Your task to perform on an android device: turn off picture-in-picture Image 0: 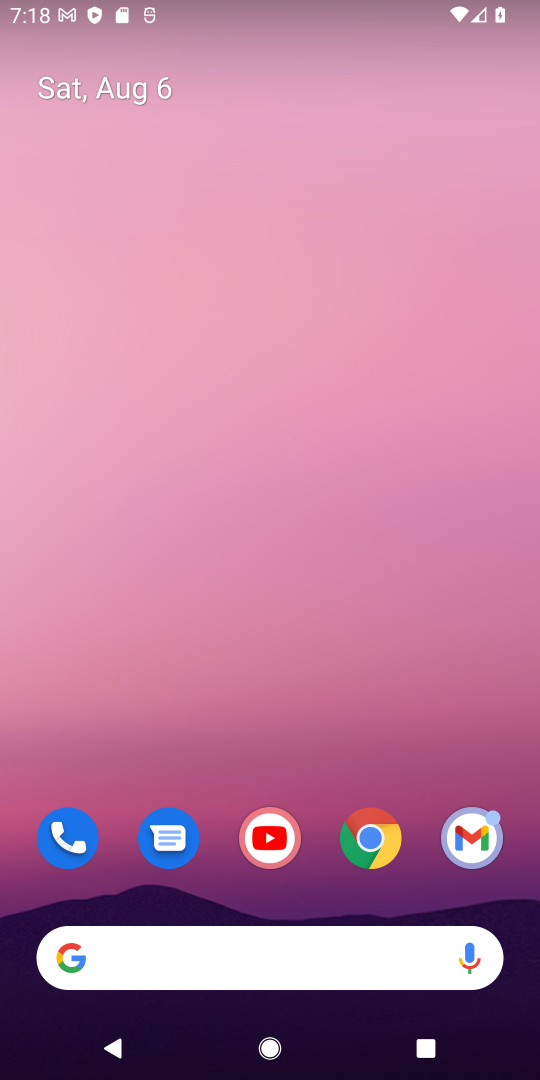
Step 0: click (401, 762)
Your task to perform on an android device: turn off picture-in-picture Image 1: 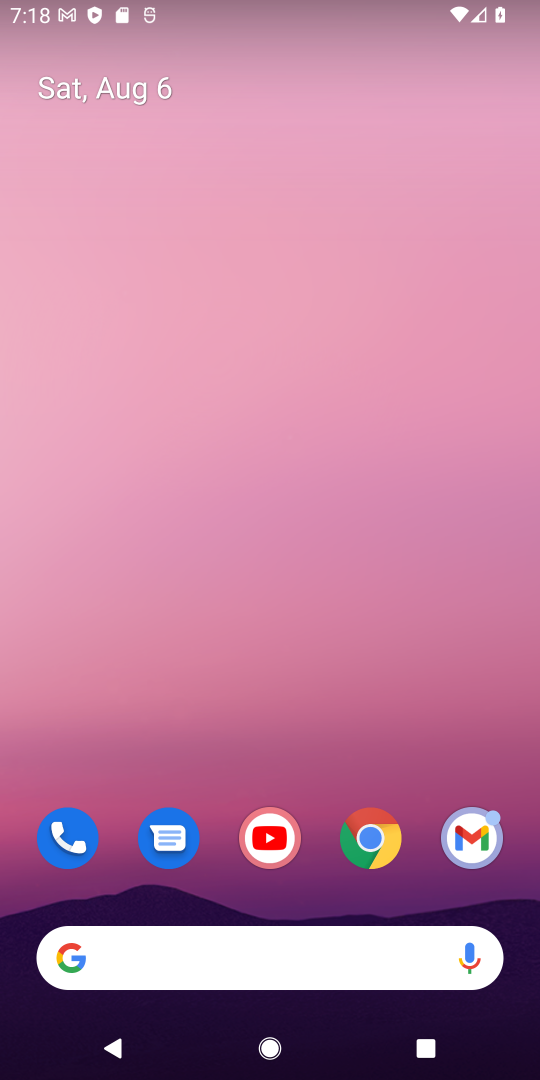
Step 1: drag from (199, 787) to (138, 314)
Your task to perform on an android device: turn off picture-in-picture Image 2: 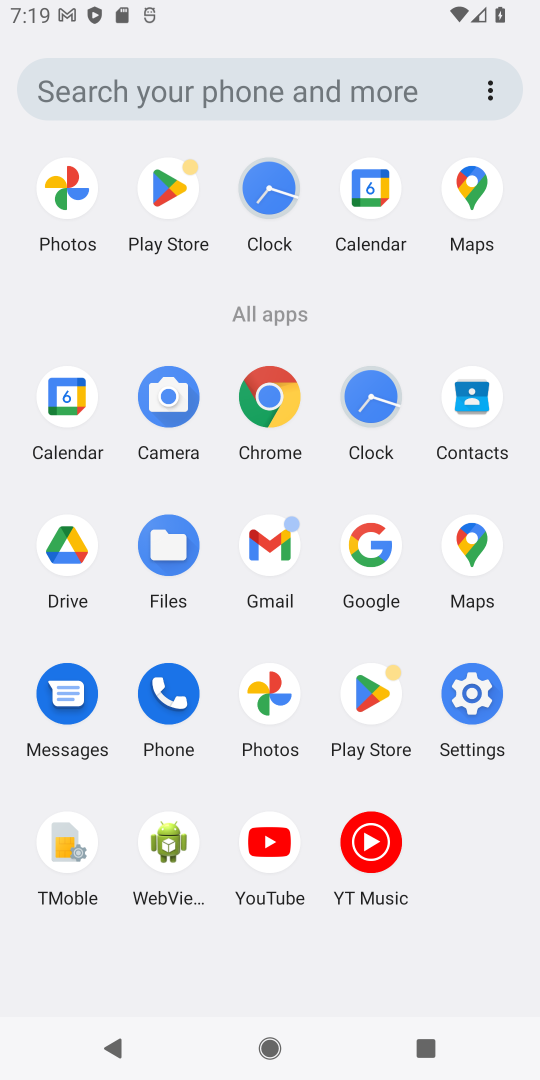
Step 2: click (472, 721)
Your task to perform on an android device: turn off picture-in-picture Image 3: 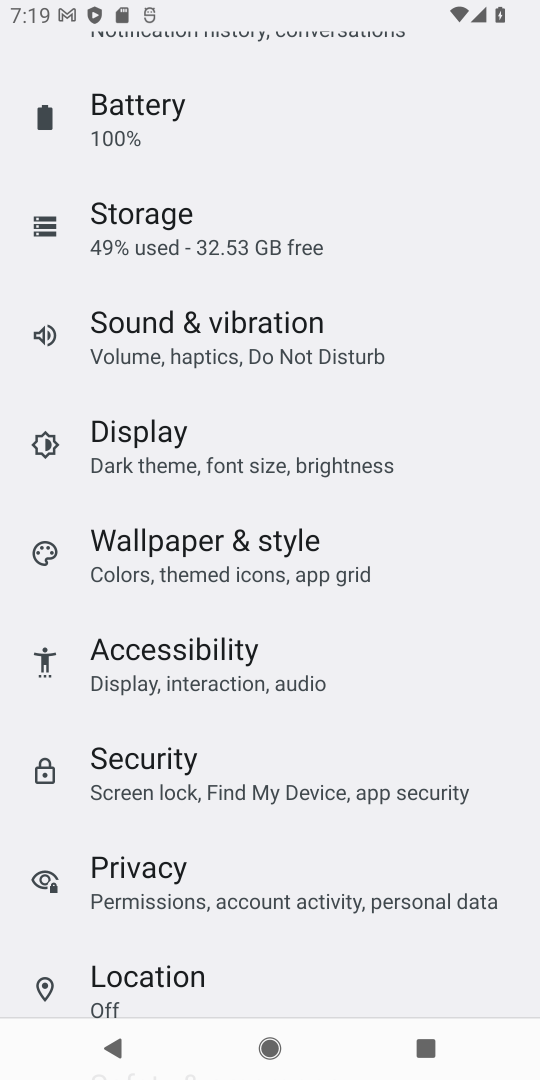
Step 3: drag from (416, 1043) to (336, 1067)
Your task to perform on an android device: turn off picture-in-picture Image 4: 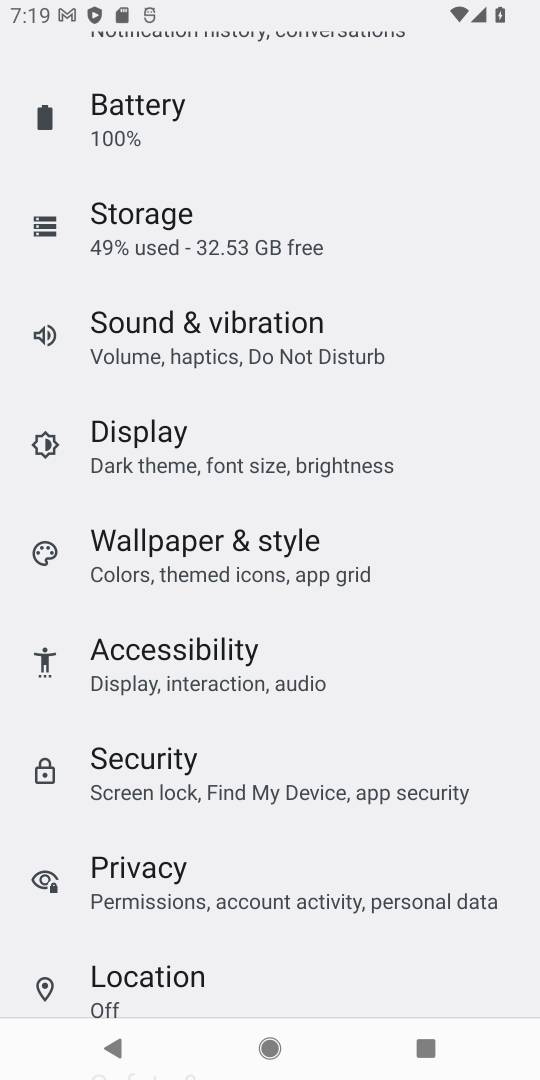
Step 4: drag from (210, 428) to (250, 942)
Your task to perform on an android device: turn off picture-in-picture Image 5: 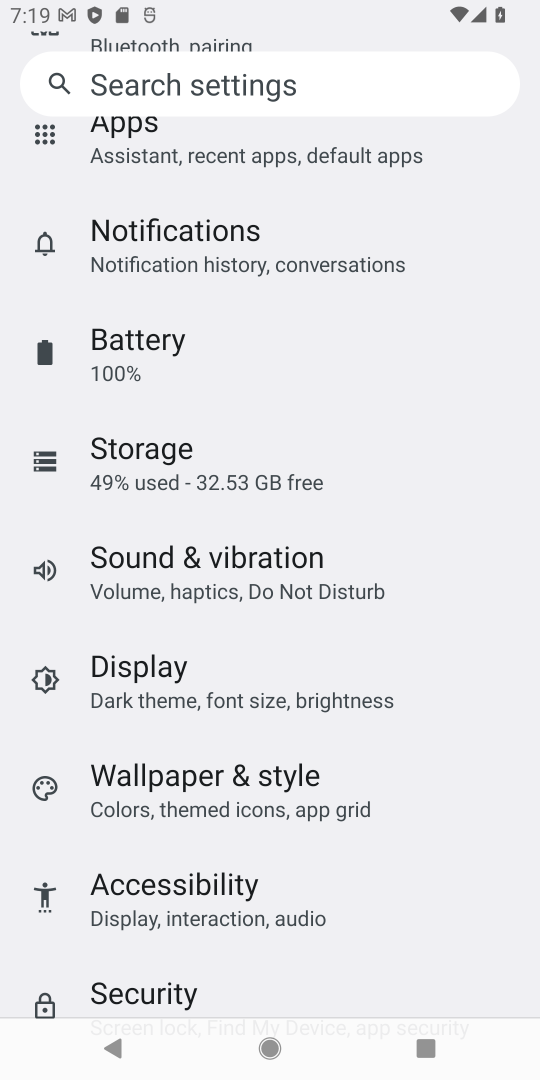
Step 5: drag from (254, 303) to (278, 829)
Your task to perform on an android device: turn off picture-in-picture Image 6: 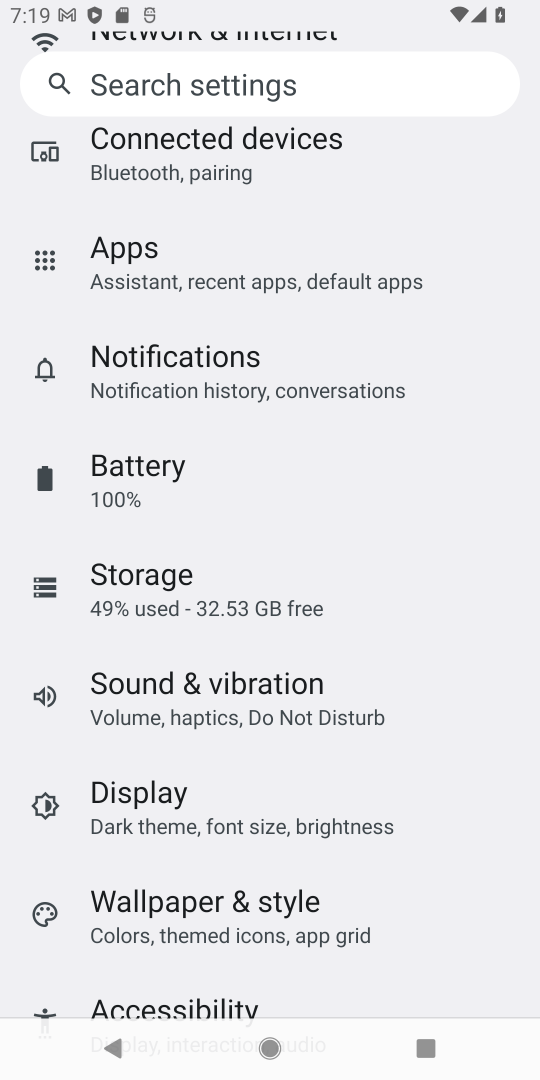
Step 6: click (148, 231)
Your task to perform on an android device: turn off picture-in-picture Image 7: 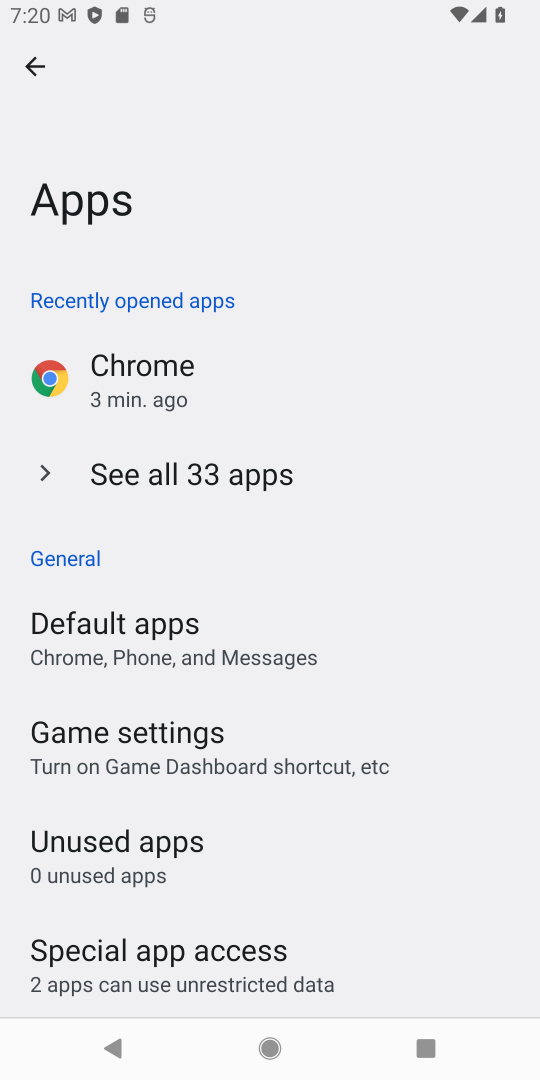
Step 7: drag from (163, 749) to (178, 251)
Your task to perform on an android device: turn off picture-in-picture Image 8: 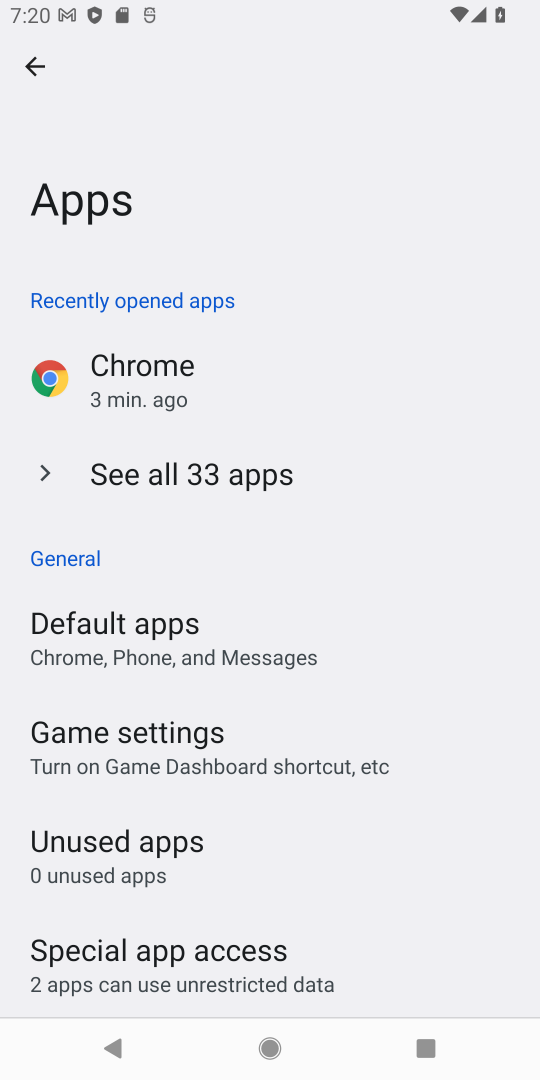
Step 8: click (135, 974)
Your task to perform on an android device: turn off picture-in-picture Image 9: 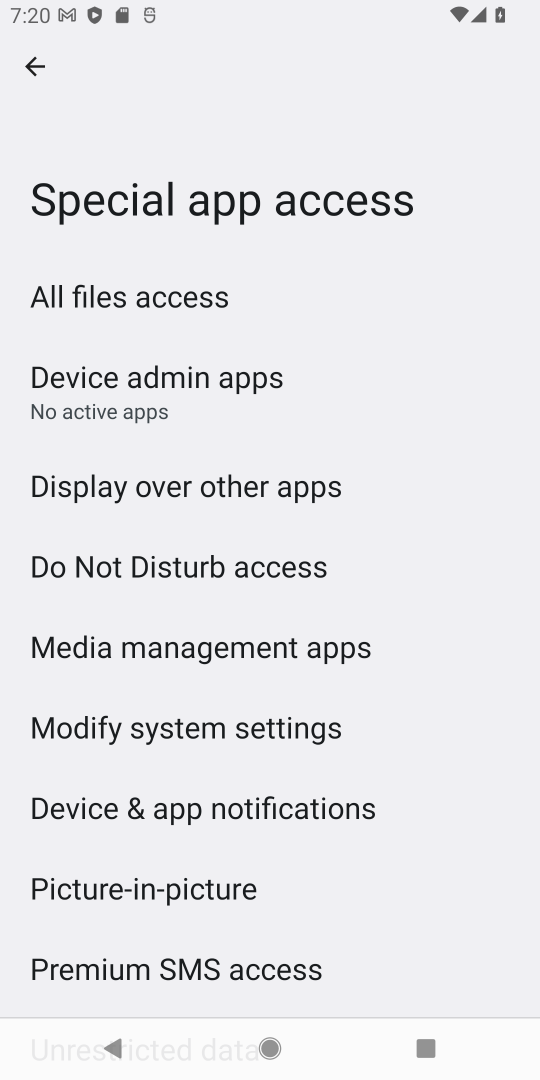
Step 9: click (187, 872)
Your task to perform on an android device: turn off picture-in-picture Image 10: 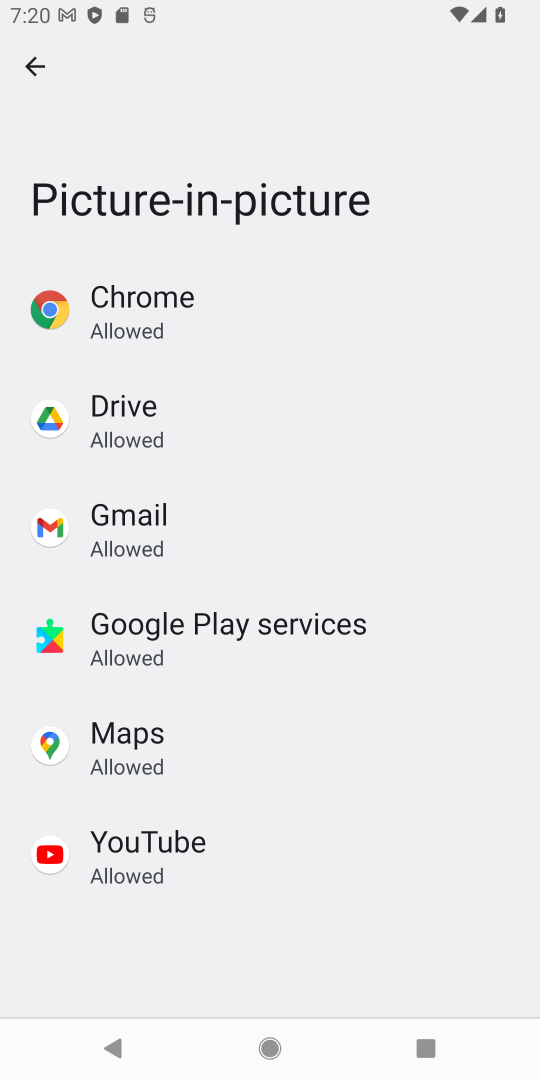
Step 10: click (146, 325)
Your task to perform on an android device: turn off picture-in-picture Image 11: 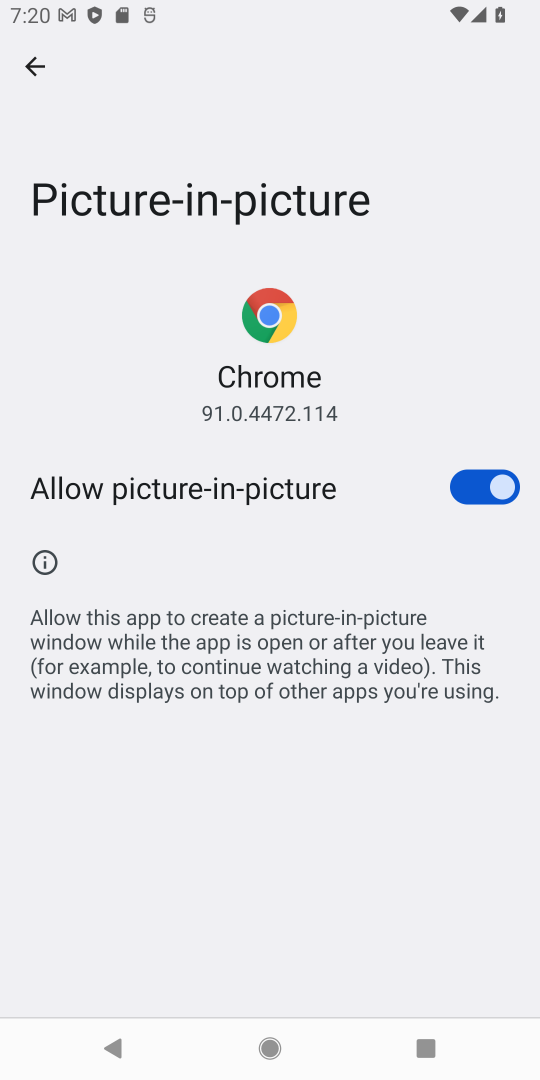
Step 11: click (465, 495)
Your task to perform on an android device: turn off picture-in-picture Image 12: 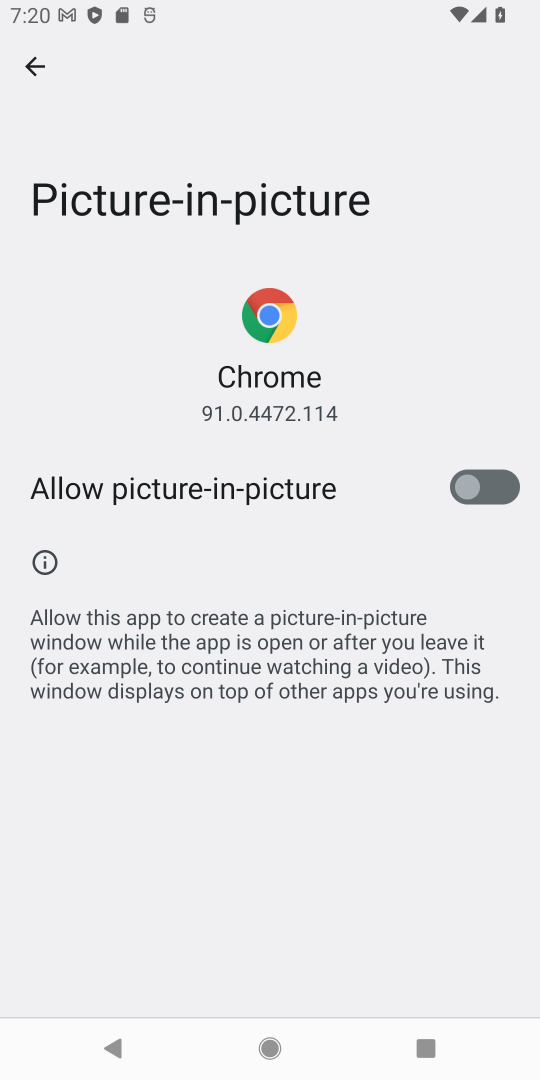
Step 12: task complete